Your task to perform on an android device: turn notification dots on Image 0: 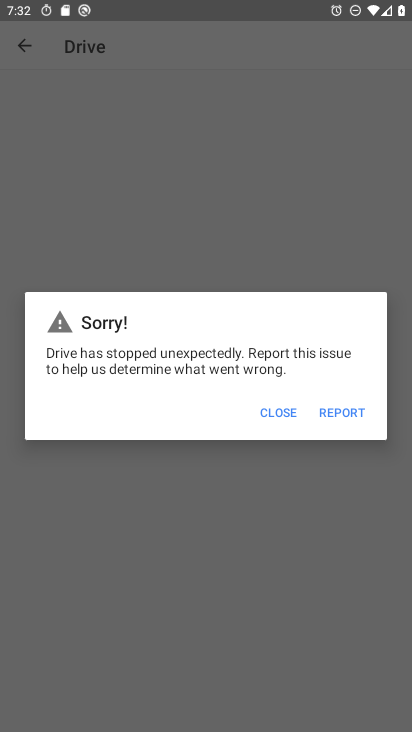
Step 0: press home button
Your task to perform on an android device: turn notification dots on Image 1: 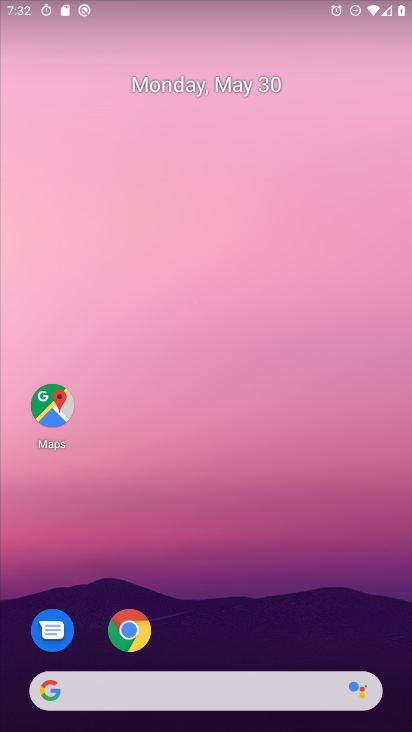
Step 1: drag from (333, 598) to (308, 16)
Your task to perform on an android device: turn notification dots on Image 2: 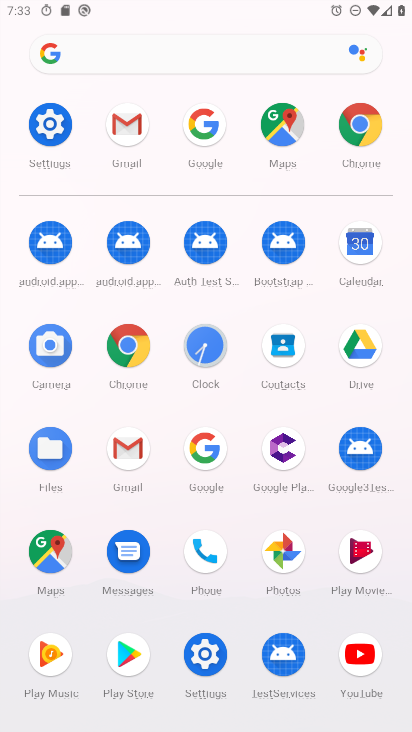
Step 2: click (63, 129)
Your task to perform on an android device: turn notification dots on Image 3: 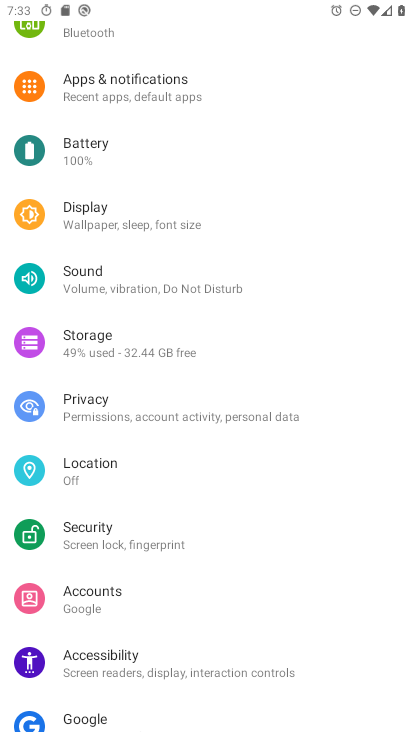
Step 3: click (219, 101)
Your task to perform on an android device: turn notification dots on Image 4: 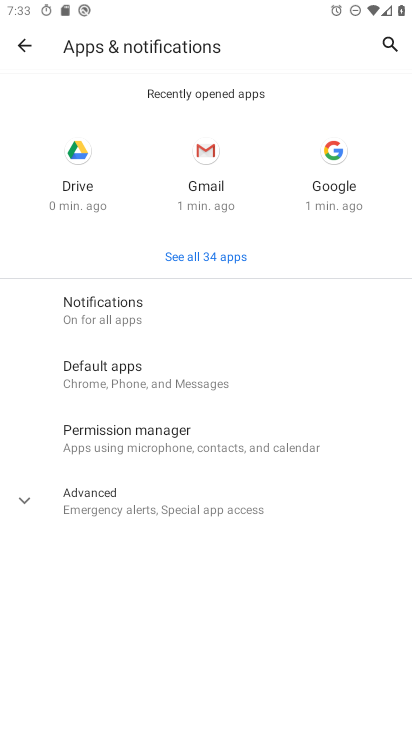
Step 4: click (164, 304)
Your task to perform on an android device: turn notification dots on Image 5: 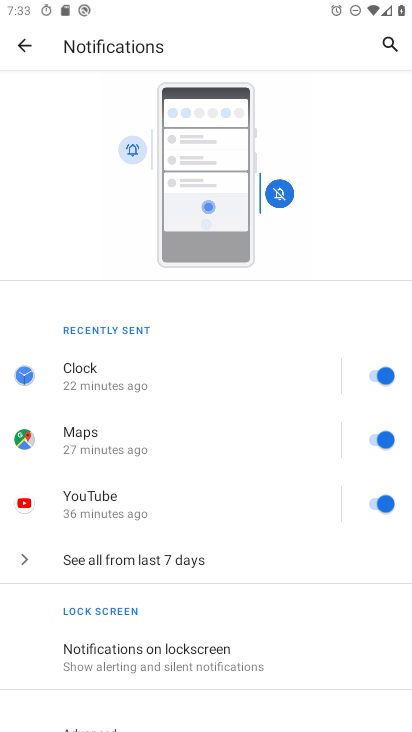
Step 5: drag from (173, 662) to (234, 239)
Your task to perform on an android device: turn notification dots on Image 6: 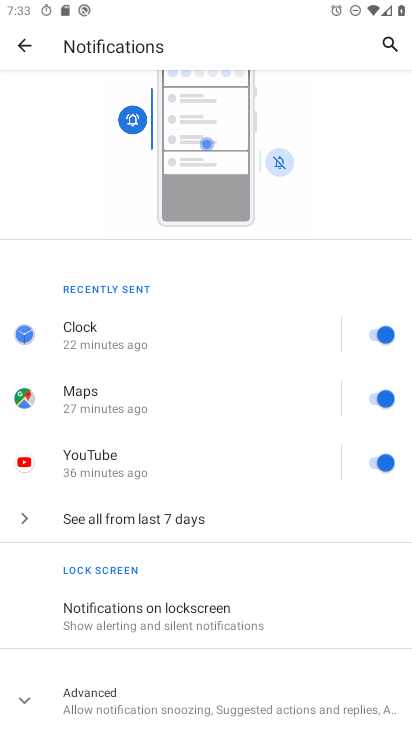
Step 6: click (74, 703)
Your task to perform on an android device: turn notification dots on Image 7: 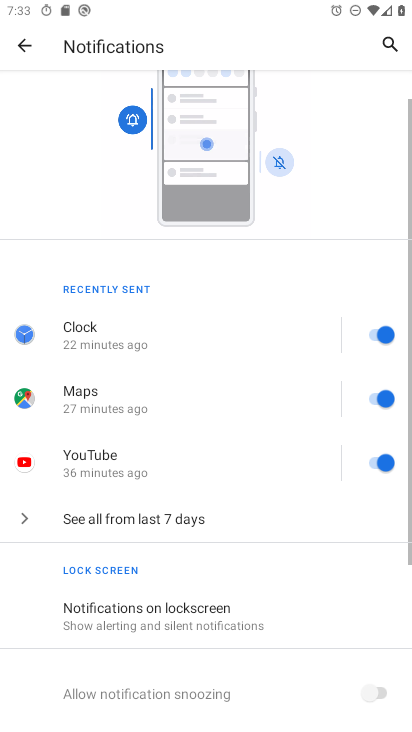
Step 7: task complete